Your task to perform on an android device: Open Maps and search for coffee Image 0: 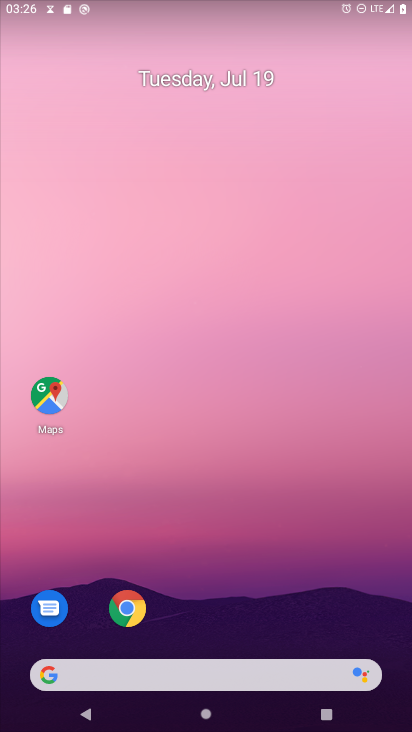
Step 0: drag from (249, 672) to (270, 105)
Your task to perform on an android device: Open Maps and search for coffee Image 1: 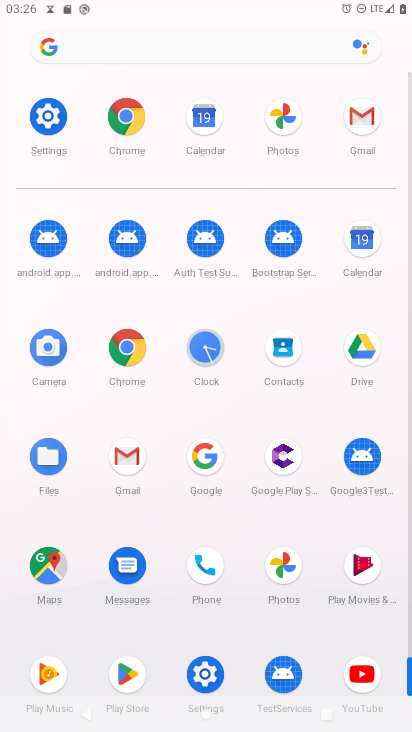
Step 1: click (59, 560)
Your task to perform on an android device: Open Maps and search for coffee Image 2: 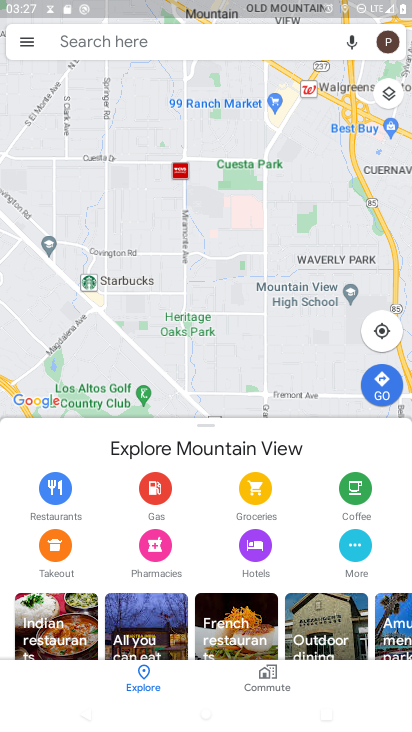
Step 2: click (210, 47)
Your task to perform on an android device: Open Maps and search for coffee Image 3: 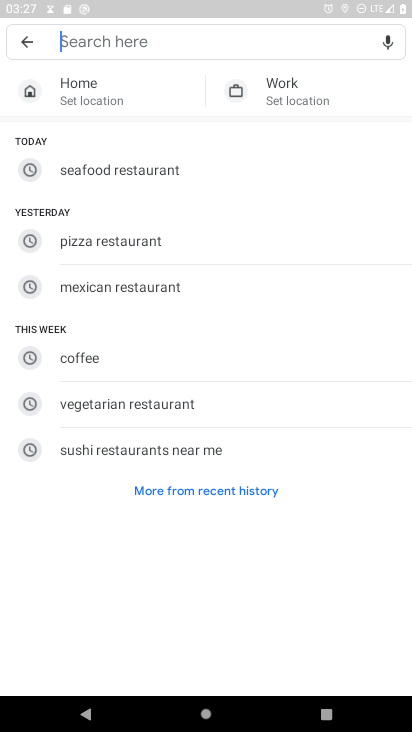
Step 3: type "coffee"
Your task to perform on an android device: Open Maps and search for coffee Image 4: 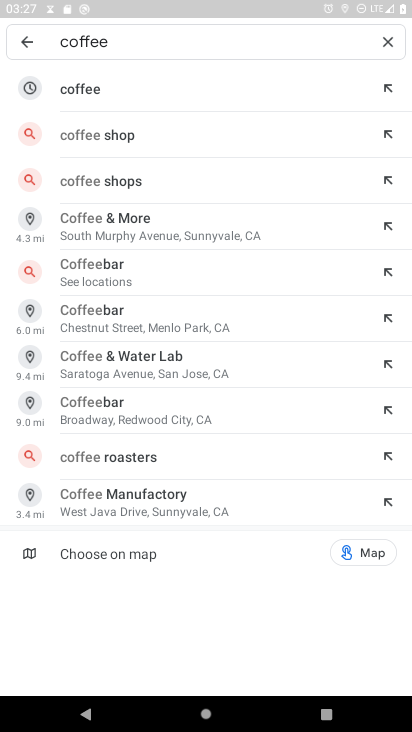
Step 4: click (288, 103)
Your task to perform on an android device: Open Maps and search for coffee Image 5: 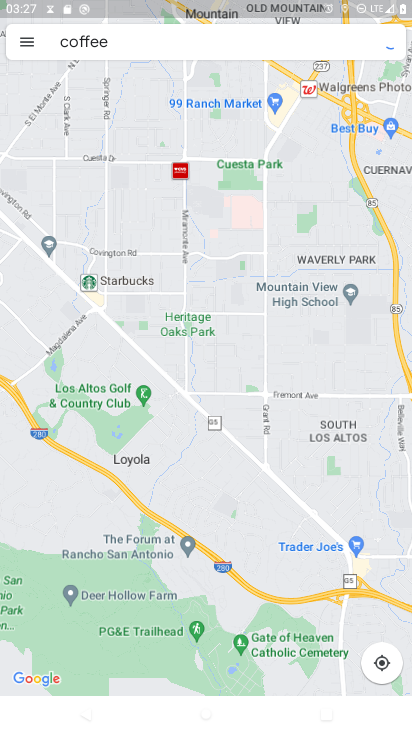
Step 5: task complete